Your task to perform on an android device: move an email to a new category in the gmail app Image 0: 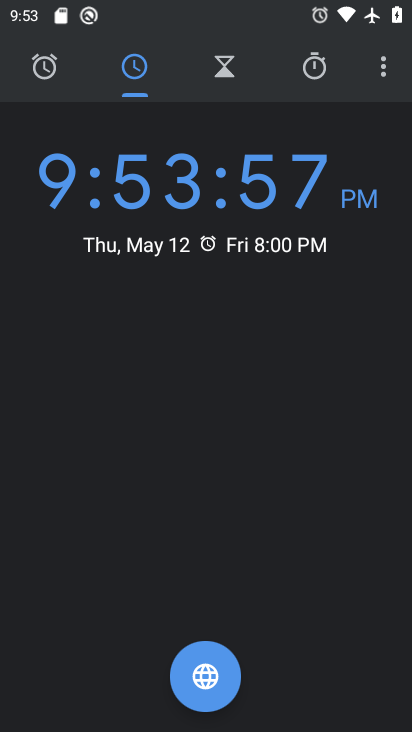
Step 0: press home button
Your task to perform on an android device: move an email to a new category in the gmail app Image 1: 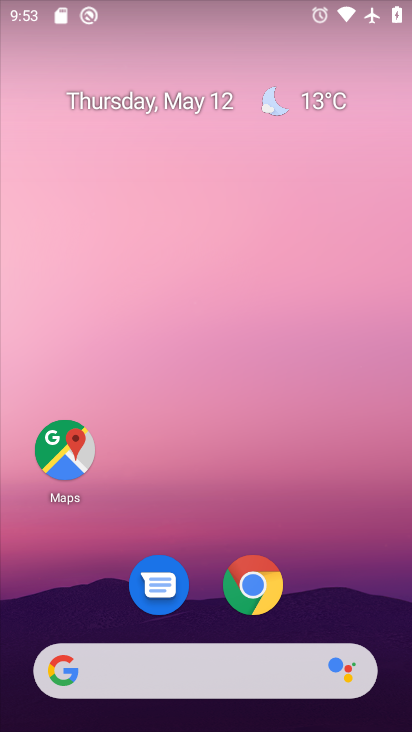
Step 1: drag from (218, 450) to (215, 28)
Your task to perform on an android device: move an email to a new category in the gmail app Image 2: 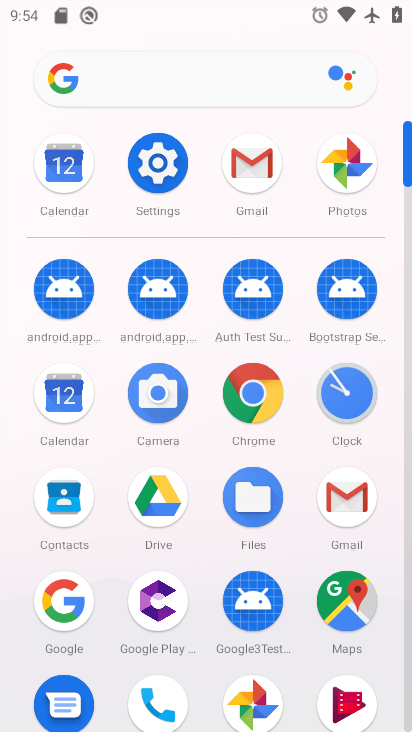
Step 2: click (248, 163)
Your task to perform on an android device: move an email to a new category in the gmail app Image 3: 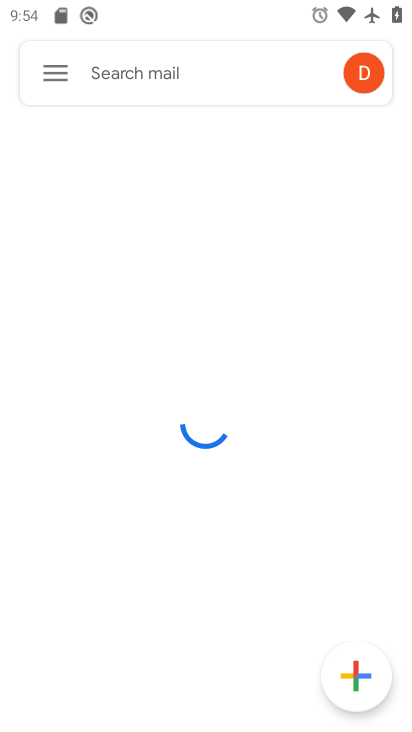
Step 3: click (56, 66)
Your task to perform on an android device: move an email to a new category in the gmail app Image 4: 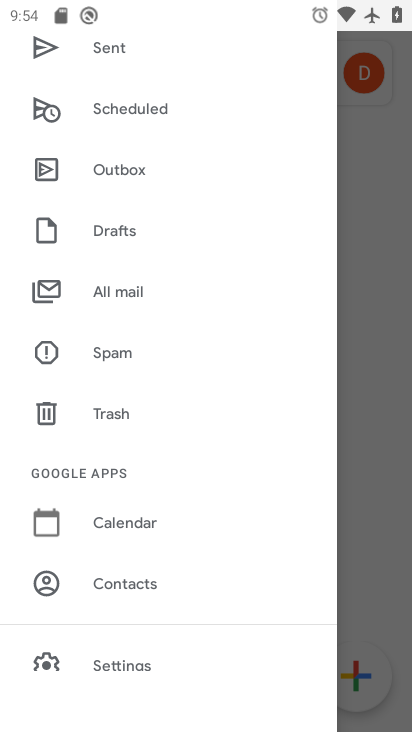
Step 4: click (132, 289)
Your task to perform on an android device: move an email to a new category in the gmail app Image 5: 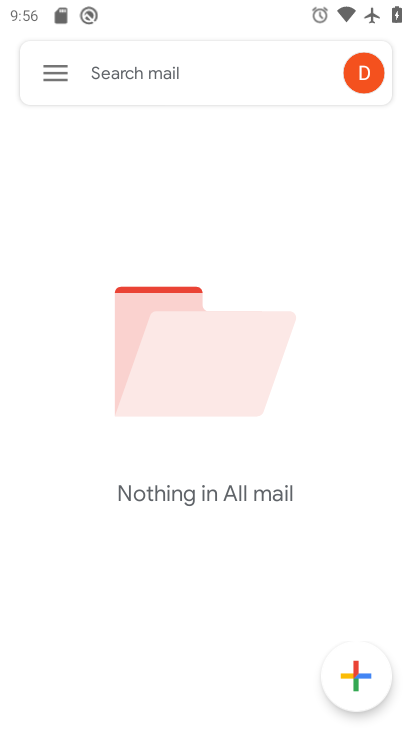
Step 5: task complete